Your task to perform on an android device: turn off improve location accuracy Image 0: 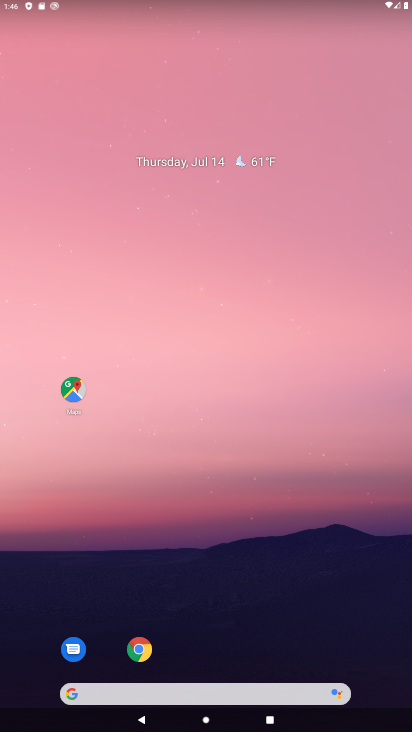
Step 0: drag from (208, 583) to (225, 108)
Your task to perform on an android device: turn off improve location accuracy Image 1: 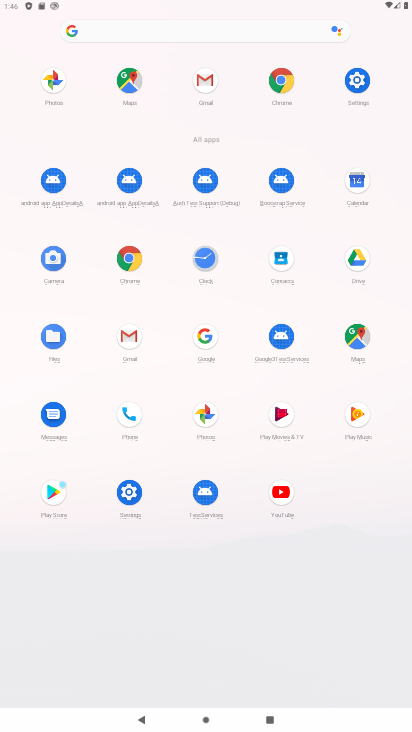
Step 1: click (126, 485)
Your task to perform on an android device: turn off improve location accuracy Image 2: 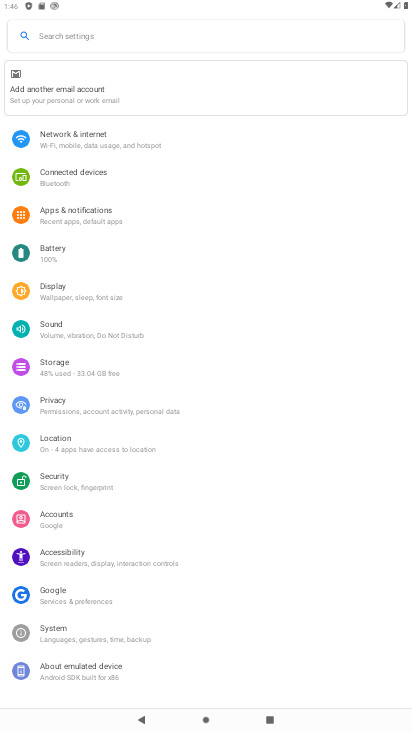
Step 2: click (79, 437)
Your task to perform on an android device: turn off improve location accuracy Image 3: 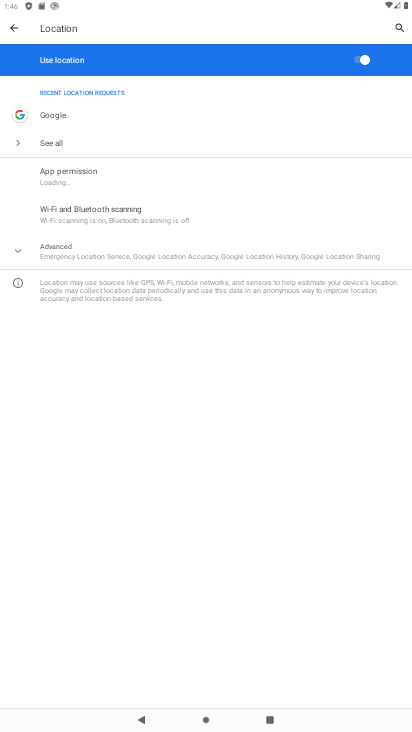
Step 3: click (21, 246)
Your task to perform on an android device: turn off improve location accuracy Image 4: 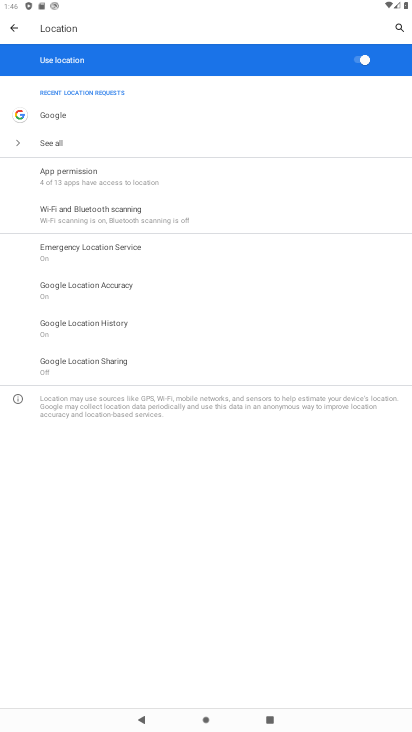
Step 4: click (97, 293)
Your task to perform on an android device: turn off improve location accuracy Image 5: 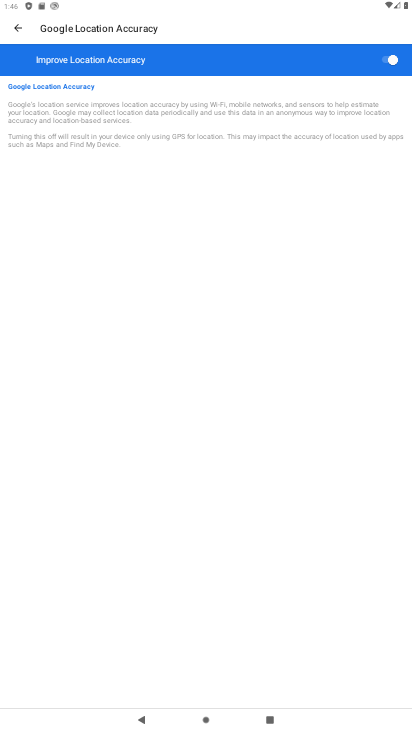
Step 5: click (384, 59)
Your task to perform on an android device: turn off improve location accuracy Image 6: 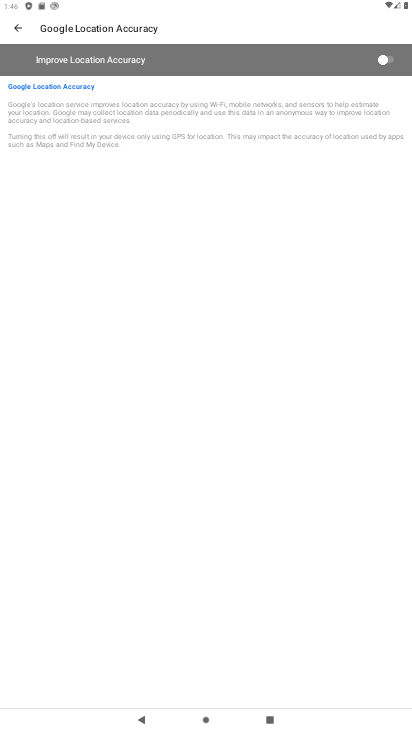
Step 6: task complete